Your task to perform on an android device: Go to internet settings Image 0: 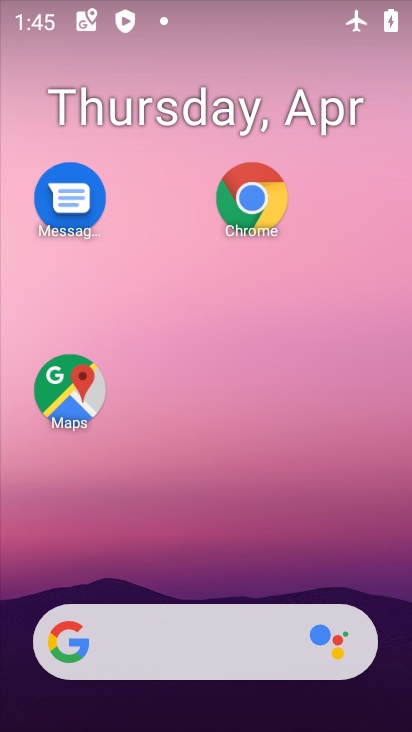
Step 0: drag from (196, 460) to (190, 12)
Your task to perform on an android device: Go to internet settings Image 1: 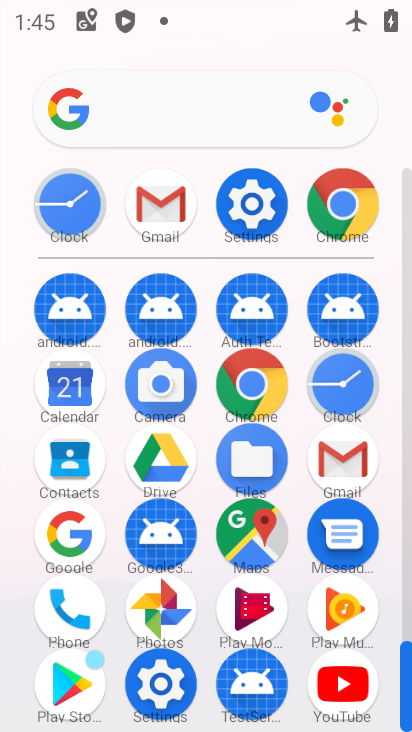
Step 1: click (259, 193)
Your task to perform on an android device: Go to internet settings Image 2: 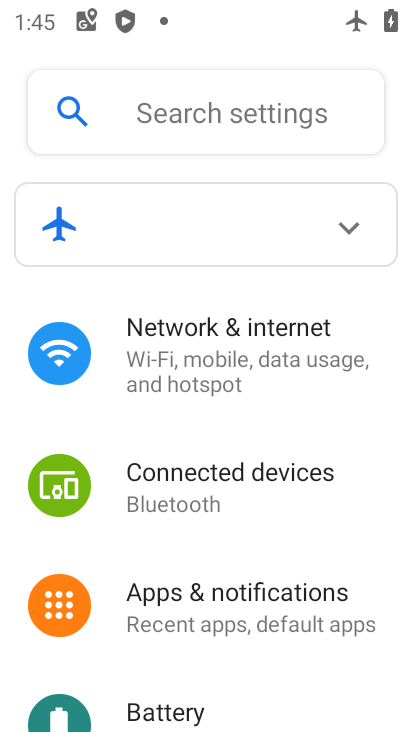
Step 2: click (176, 367)
Your task to perform on an android device: Go to internet settings Image 3: 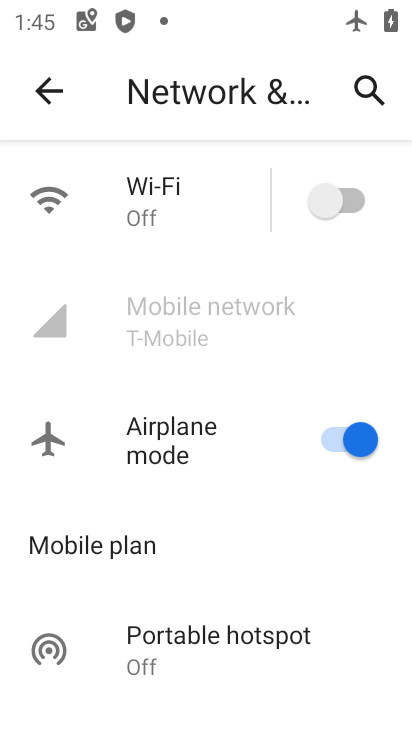
Step 3: drag from (300, 592) to (235, 201)
Your task to perform on an android device: Go to internet settings Image 4: 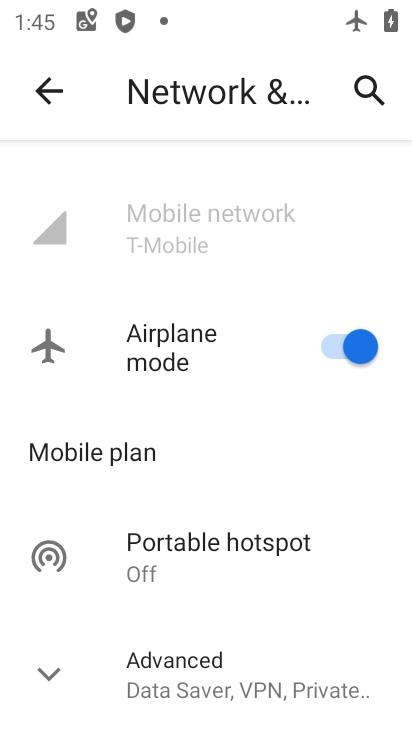
Step 4: click (244, 666)
Your task to perform on an android device: Go to internet settings Image 5: 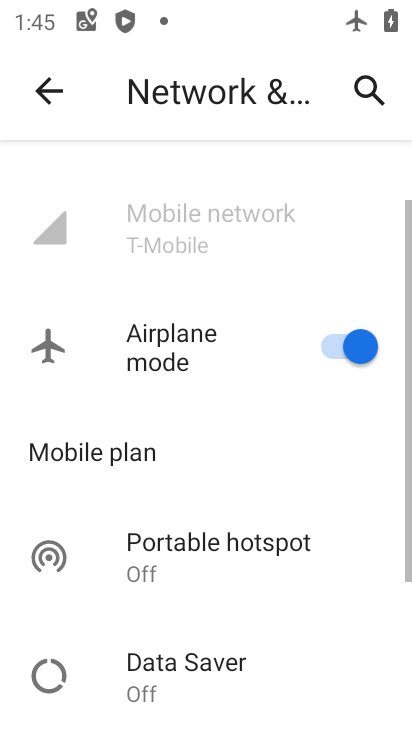
Step 5: task complete